Your task to perform on an android device: Go to Android settings Image 0: 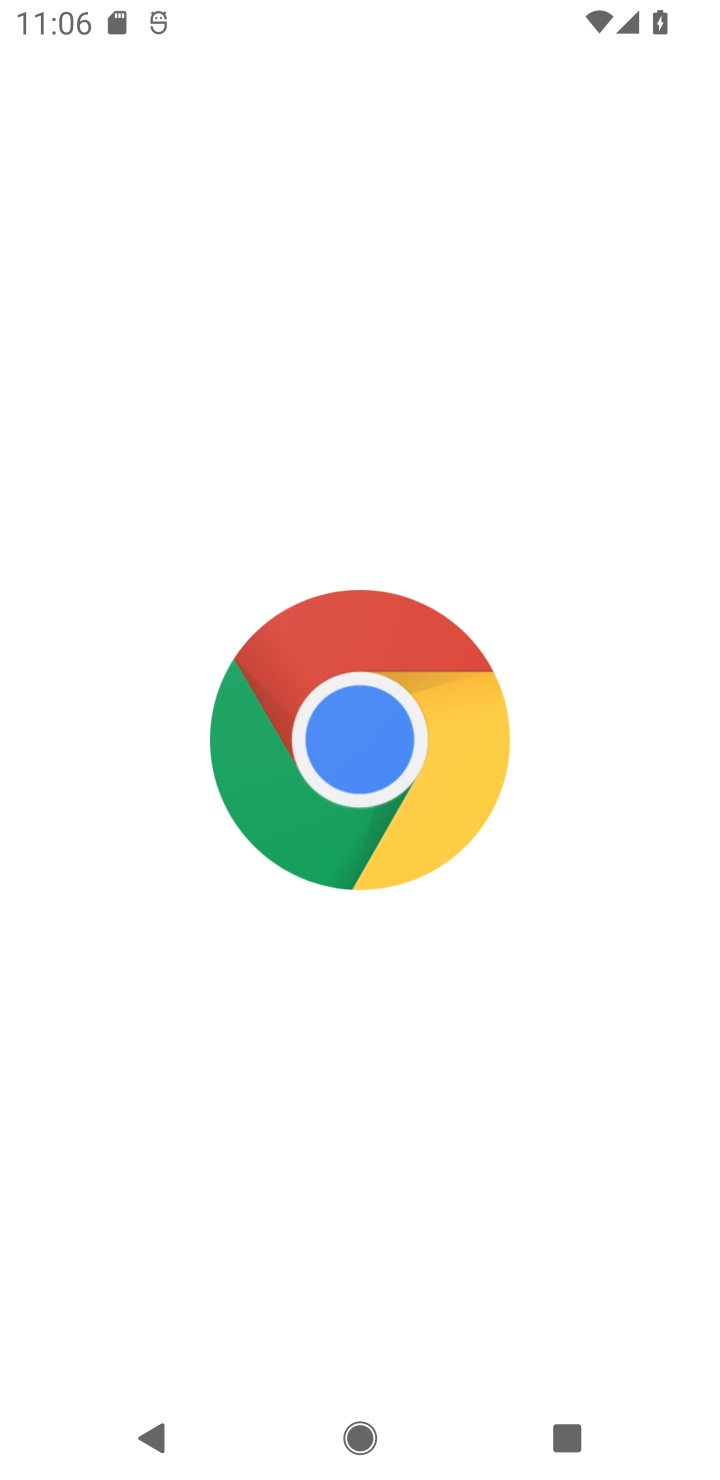
Step 0: press home button
Your task to perform on an android device: Go to Android settings Image 1: 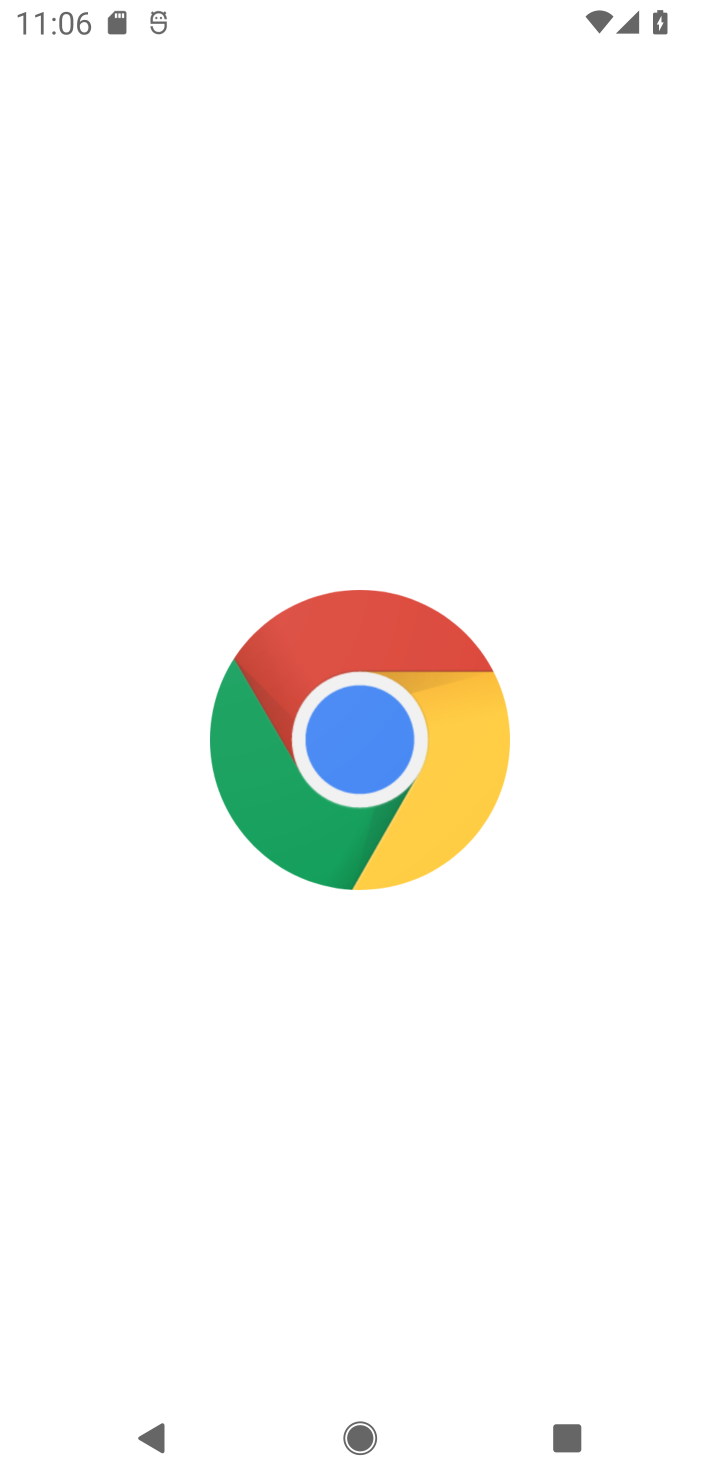
Step 1: press home button
Your task to perform on an android device: Go to Android settings Image 2: 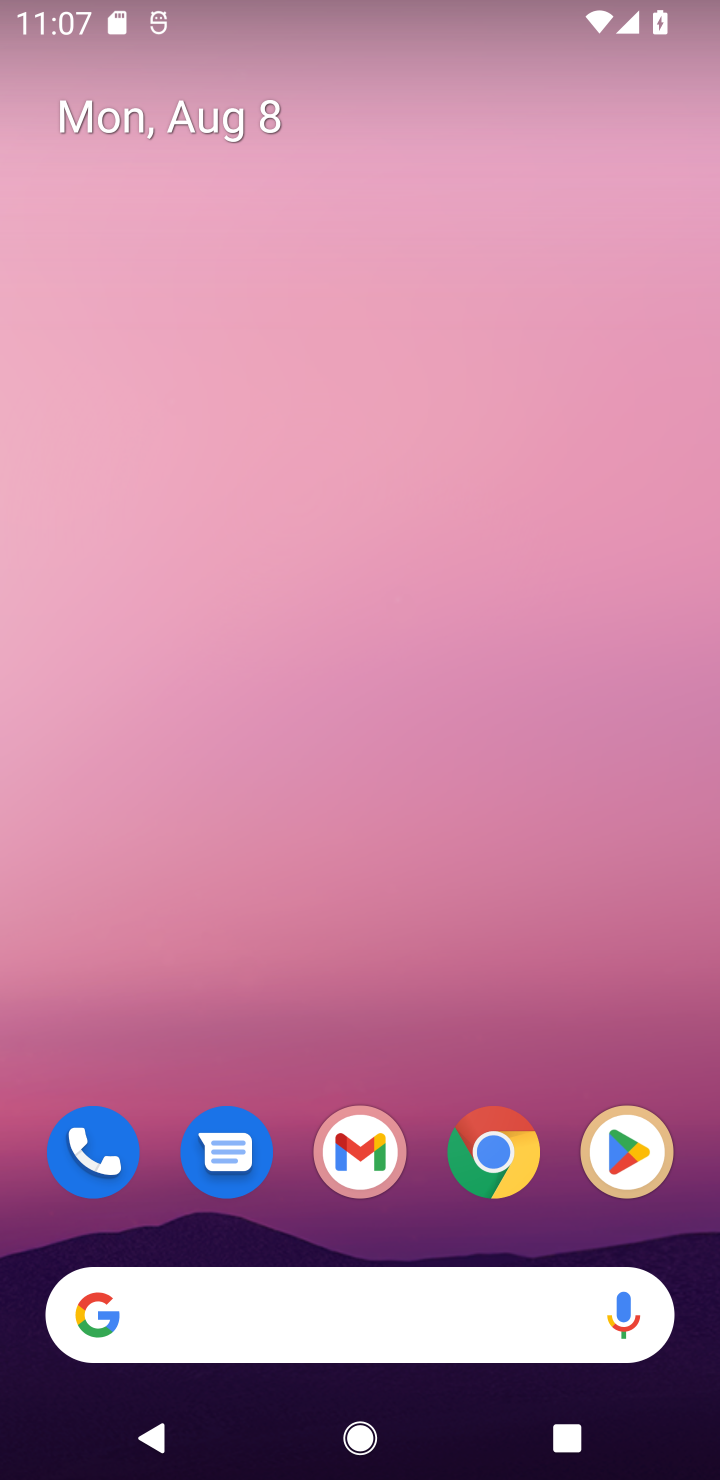
Step 2: drag from (447, 898) to (595, 143)
Your task to perform on an android device: Go to Android settings Image 3: 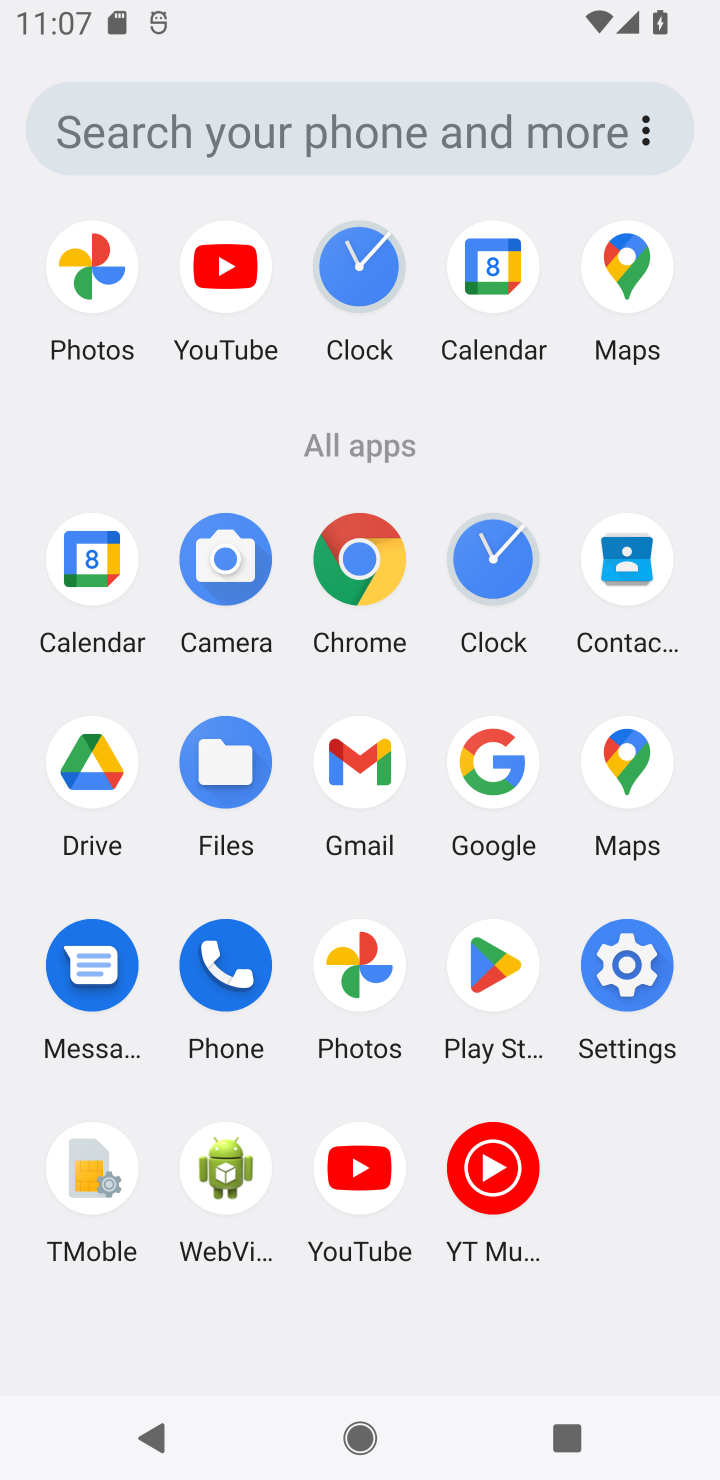
Step 3: click (633, 993)
Your task to perform on an android device: Go to Android settings Image 4: 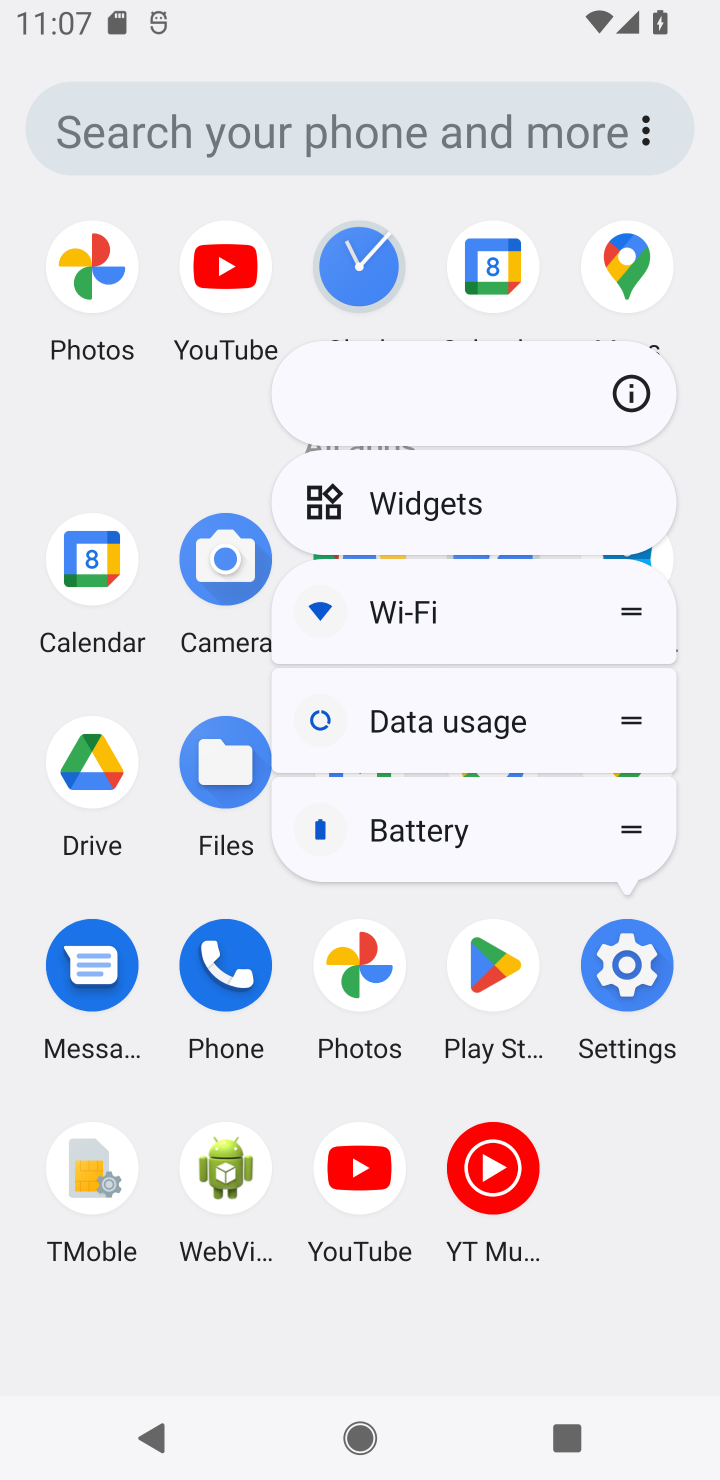
Step 4: click (633, 977)
Your task to perform on an android device: Go to Android settings Image 5: 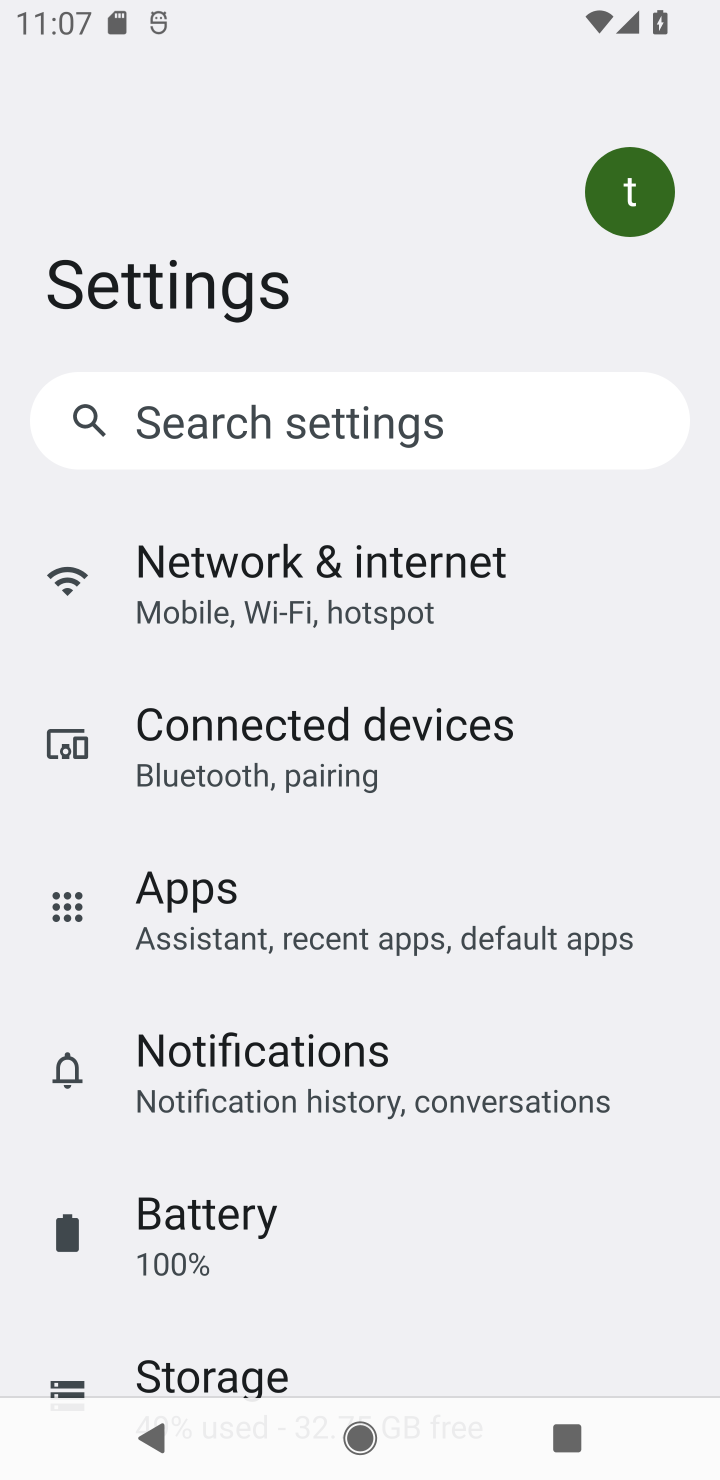
Step 5: task complete